Your task to perform on an android device: Open the Play Movies app and select the watchlist tab. Image 0: 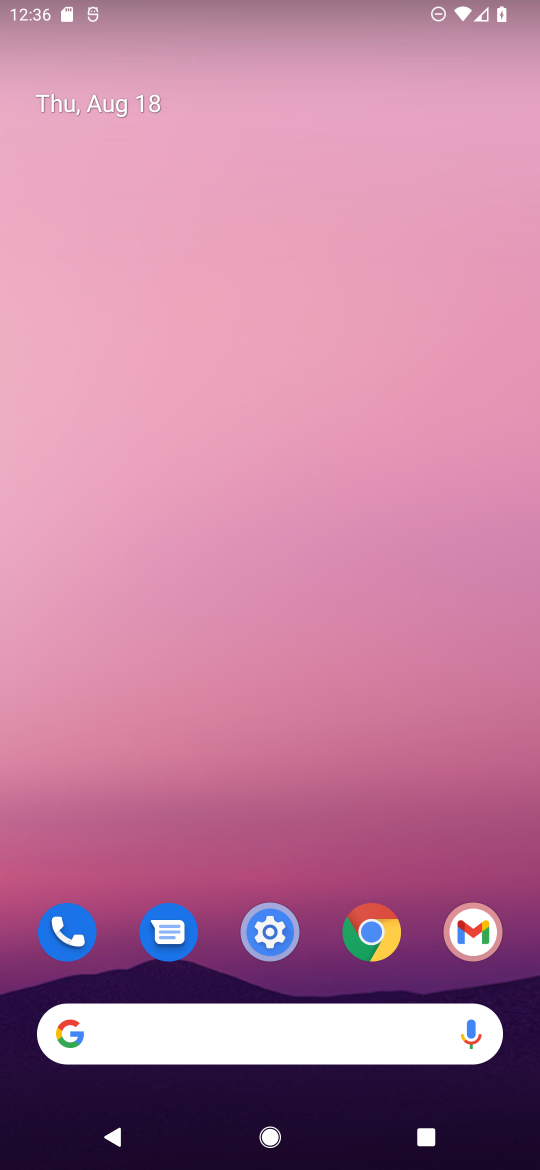
Step 0: drag from (261, 822) to (222, 306)
Your task to perform on an android device: Open the Play Movies app and select the watchlist tab. Image 1: 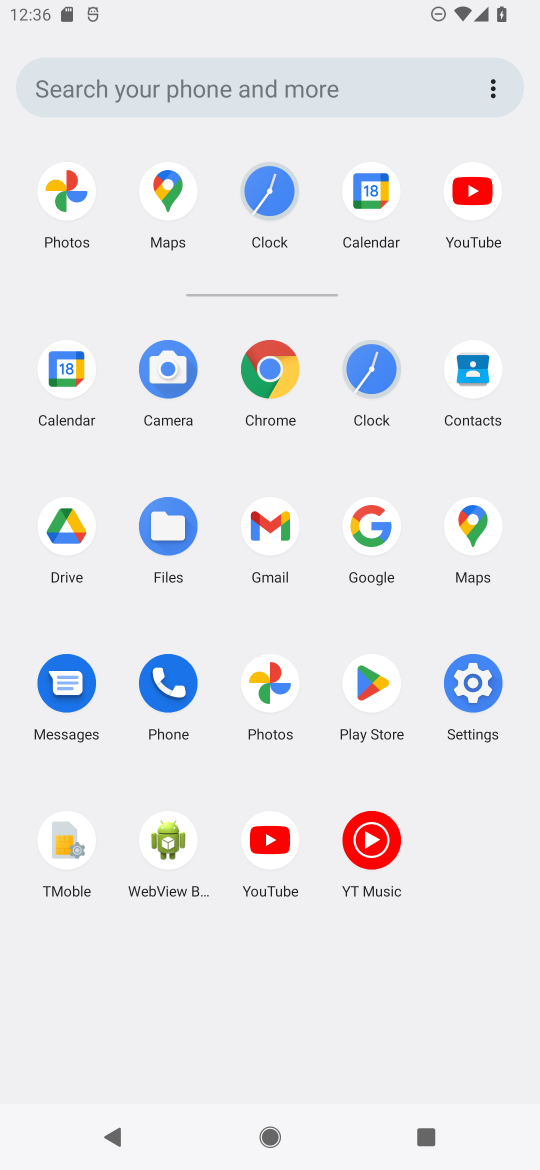
Step 1: task complete